Your task to perform on an android device: change notification settings in the gmail app Image 0: 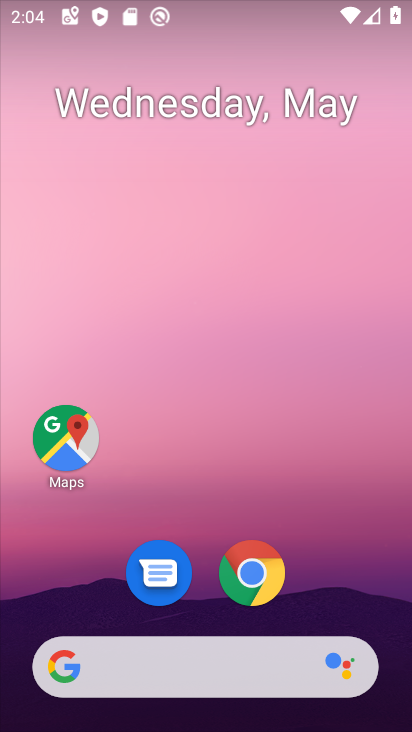
Step 0: drag from (357, 597) to (399, 85)
Your task to perform on an android device: change notification settings in the gmail app Image 1: 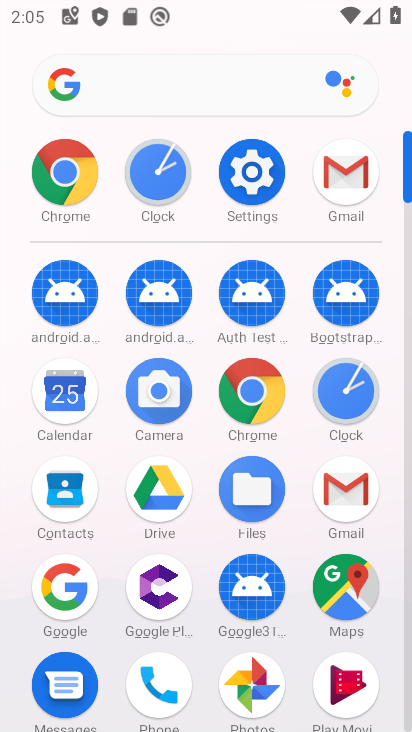
Step 1: click (340, 181)
Your task to perform on an android device: change notification settings in the gmail app Image 2: 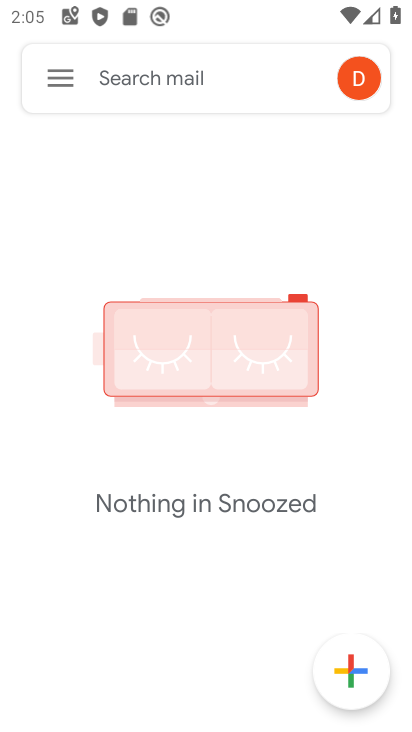
Step 2: click (36, 76)
Your task to perform on an android device: change notification settings in the gmail app Image 3: 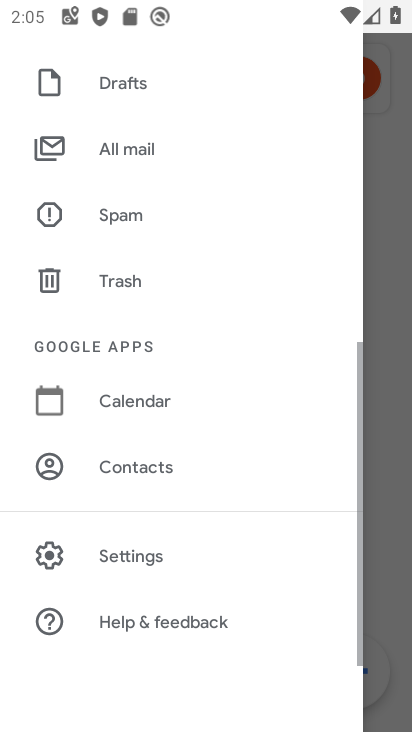
Step 3: click (122, 559)
Your task to perform on an android device: change notification settings in the gmail app Image 4: 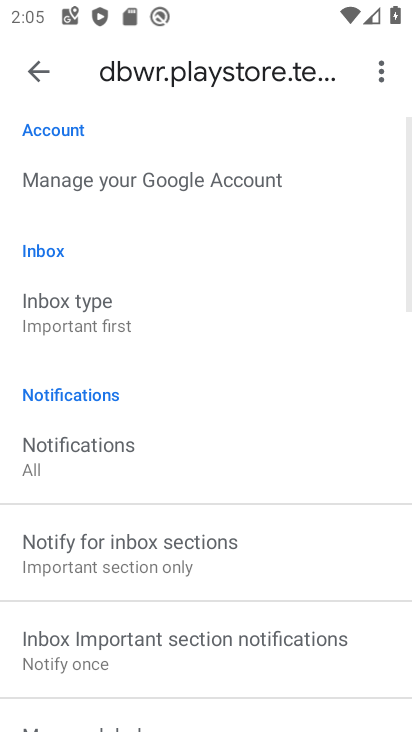
Step 4: drag from (120, 656) to (158, 377)
Your task to perform on an android device: change notification settings in the gmail app Image 5: 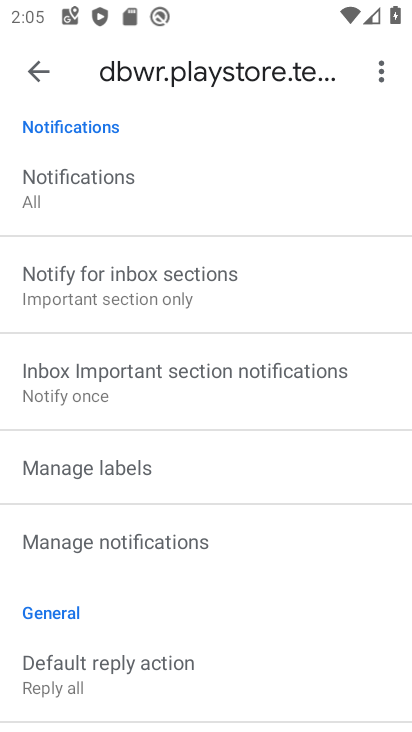
Step 5: click (114, 547)
Your task to perform on an android device: change notification settings in the gmail app Image 6: 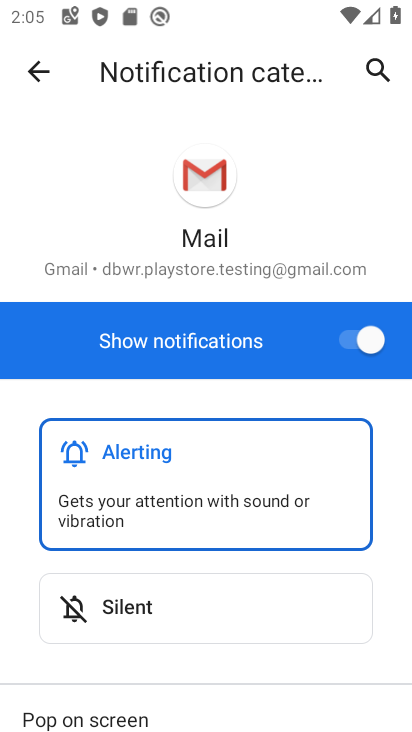
Step 6: click (378, 327)
Your task to perform on an android device: change notification settings in the gmail app Image 7: 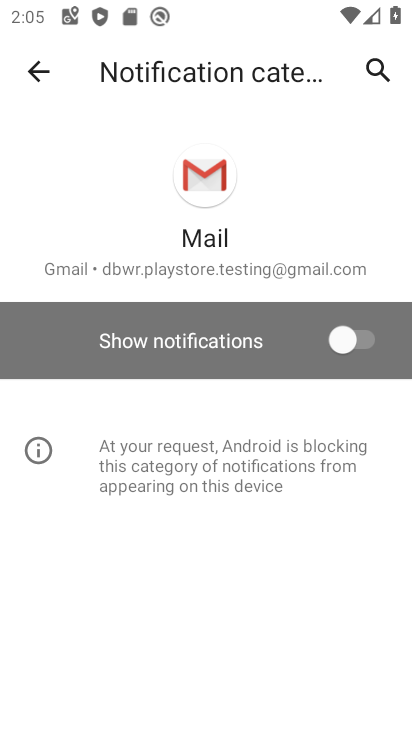
Step 7: task complete